Your task to perform on an android device: open chrome and create a bookmark for the current page Image 0: 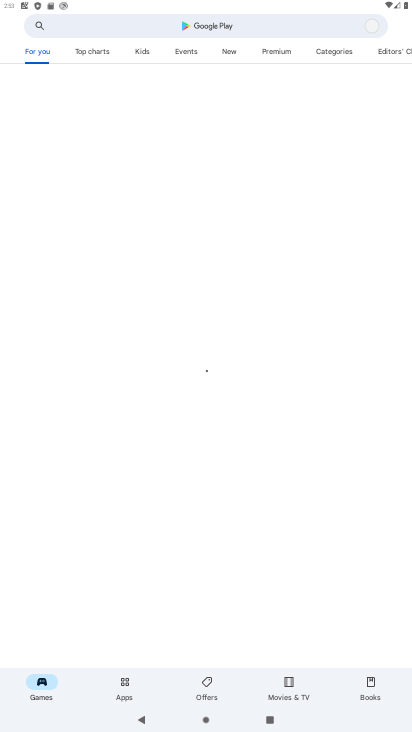
Step 0: press home button
Your task to perform on an android device: open chrome and create a bookmark for the current page Image 1: 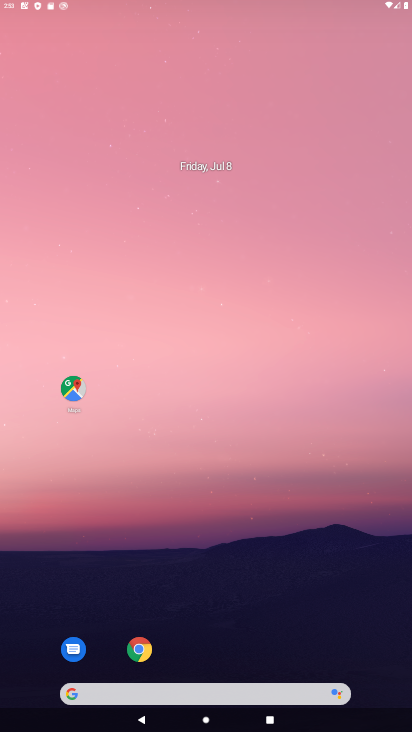
Step 1: drag from (207, 669) to (119, 134)
Your task to perform on an android device: open chrome and create a bookmark for the current page Image 2: 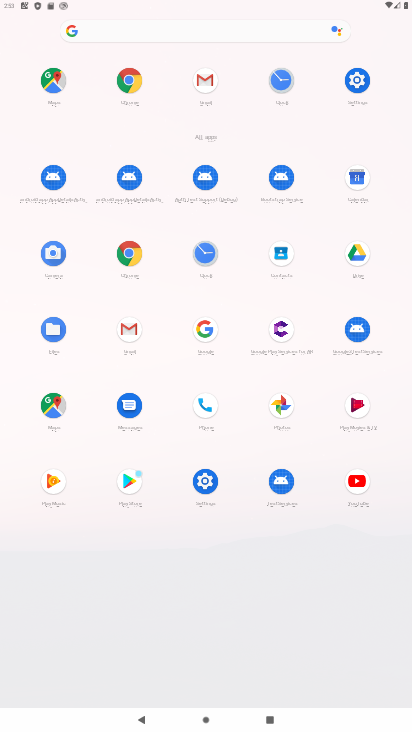
Step 2: click (118, 88)
Your task to perform on an android device: open chrome and create a bookmark for the current page Image 3: 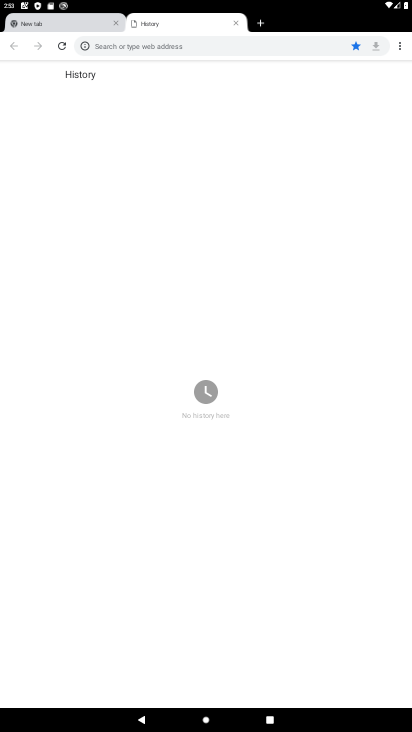
Step 3: drag from (400, 46) to (297, 87)
Your task to perform on an android device: open chrome and create a bookmark for the current page Image 4: 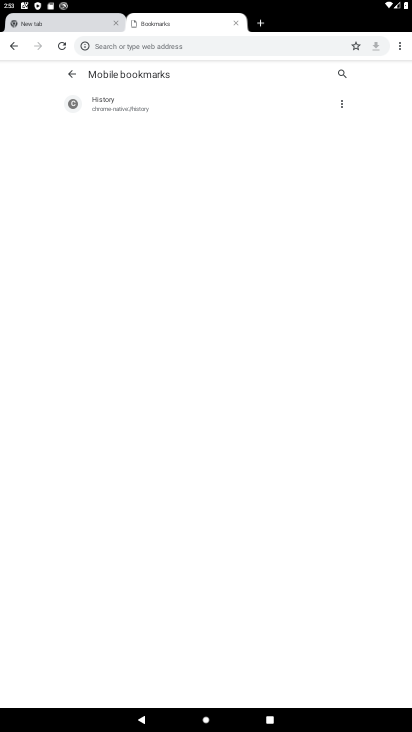
Step 4: click (360, 41)
Your task to perform on an android device: open chrome and create a bookmark for the current page Image 5: 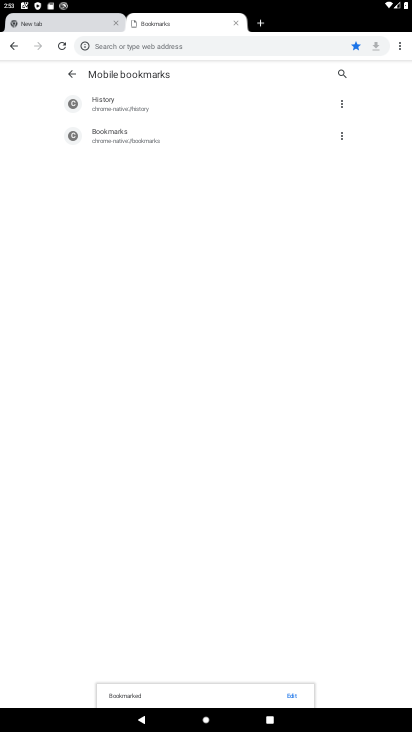
Step 5: task complete